Your task to perform on an android device: Go to ESPN.com Image 0: 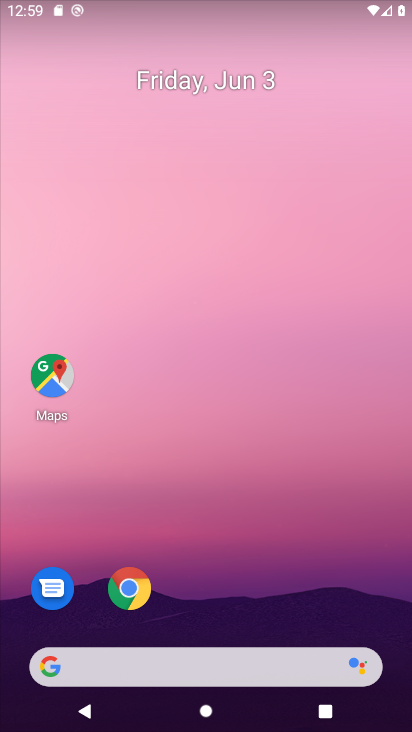
Step 0: click (130, 588)
Your task to perform on an android device: Go to ESPN.com Image 1: 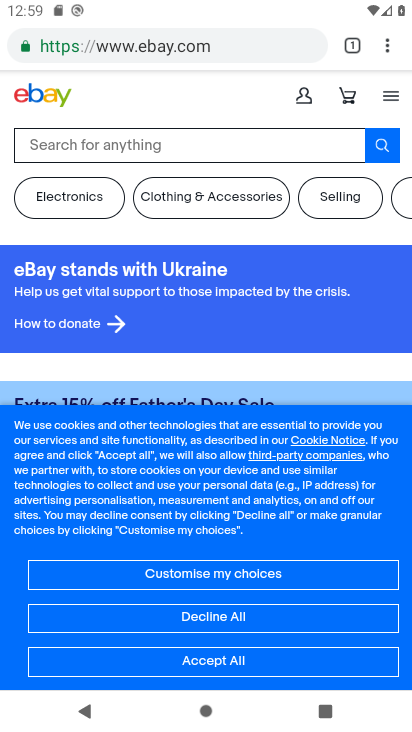
Step 1: click (253, 49)
Your task to perform on an android device: Go to ESPN.com Image 2: 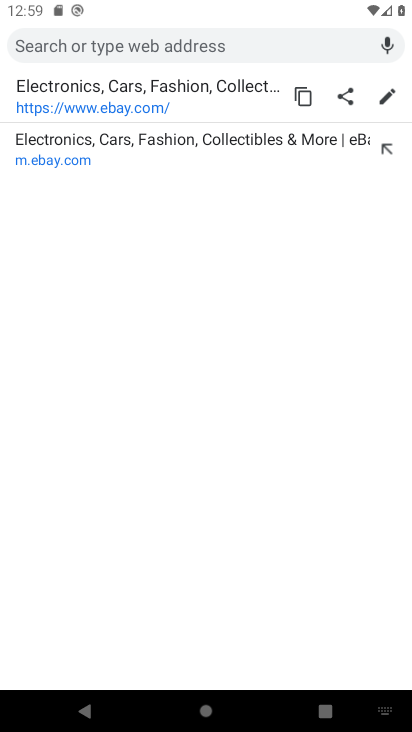
Step 2: type "respn"
Your task to perform on an android device: Go to ESPN.com Image 3: 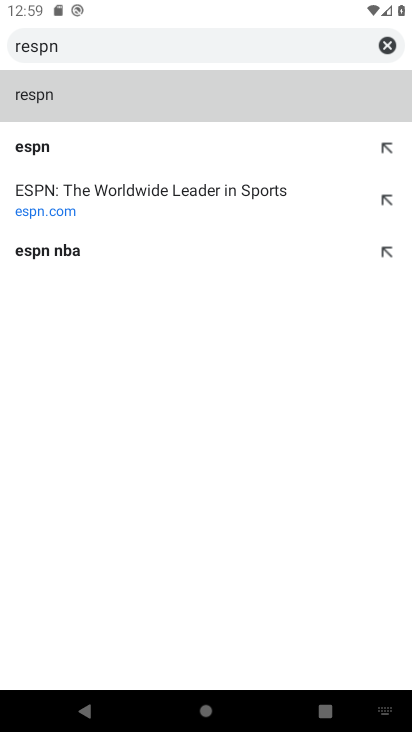
Step 3: click (103, 206)
Your task to perform on an android device: Go to ESPN.com Image 4: 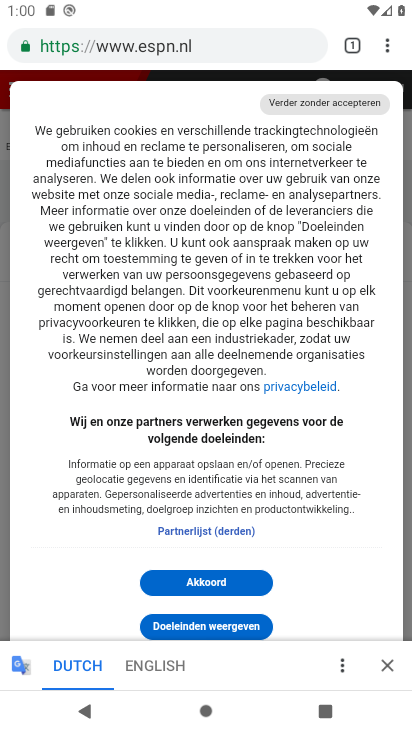
Step 4: task complete